Your task to perform on an android device: Search for usb-a to usb-b on walmart.com, select the first entry, and add it to the cart. Image 0: 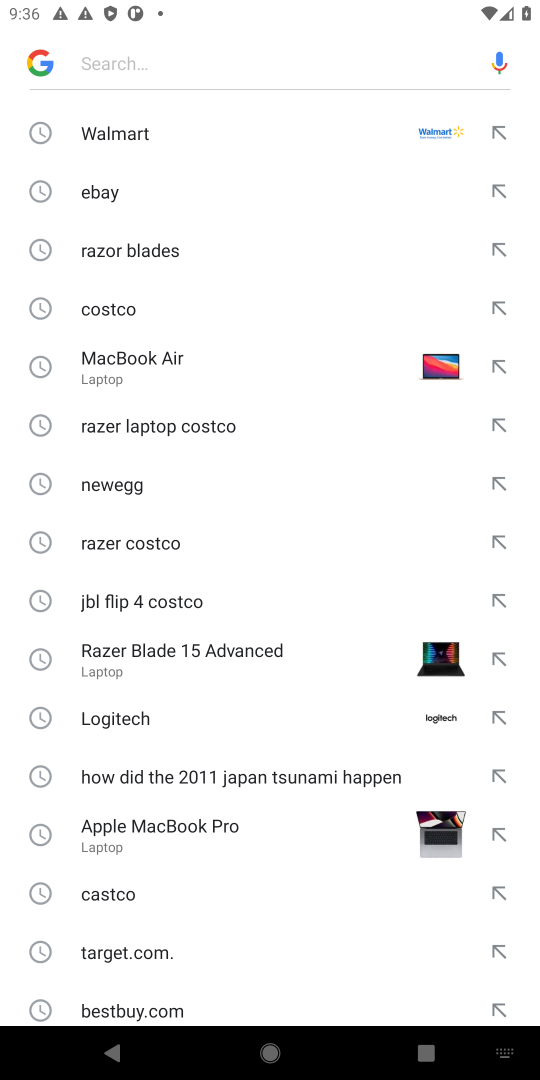
Step 0: click (122, 127)
Your task to perform on an android device: Search for usb-a to usb-b on walmart.com, select the first entry, and add it to the cart. Image 1: 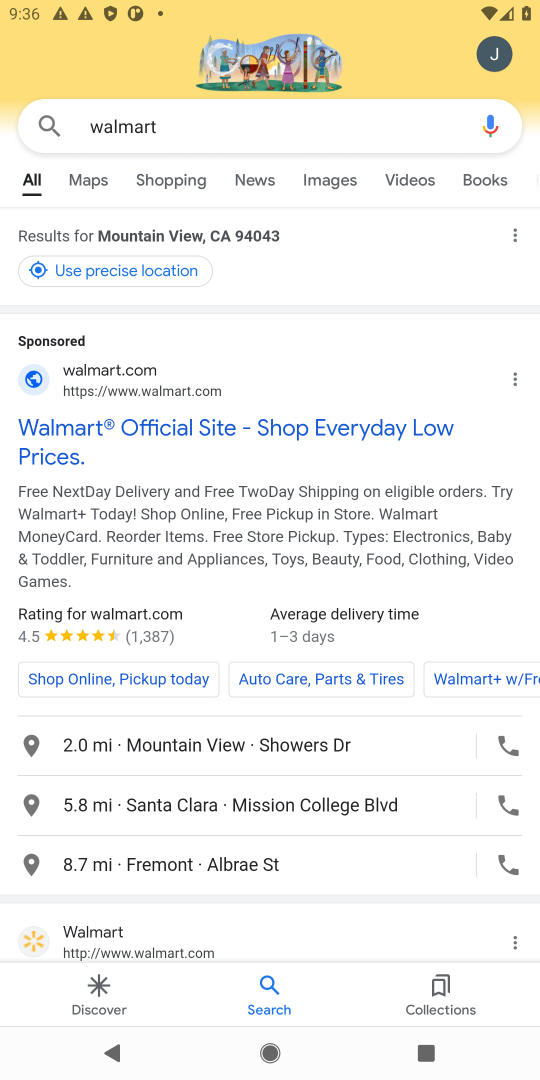
Step 1: click (192, 436)
Your task to perform on an android device: Search for usb-a to usb-b on walmart.com, select the first entry, and add it to the cart. Image 2: 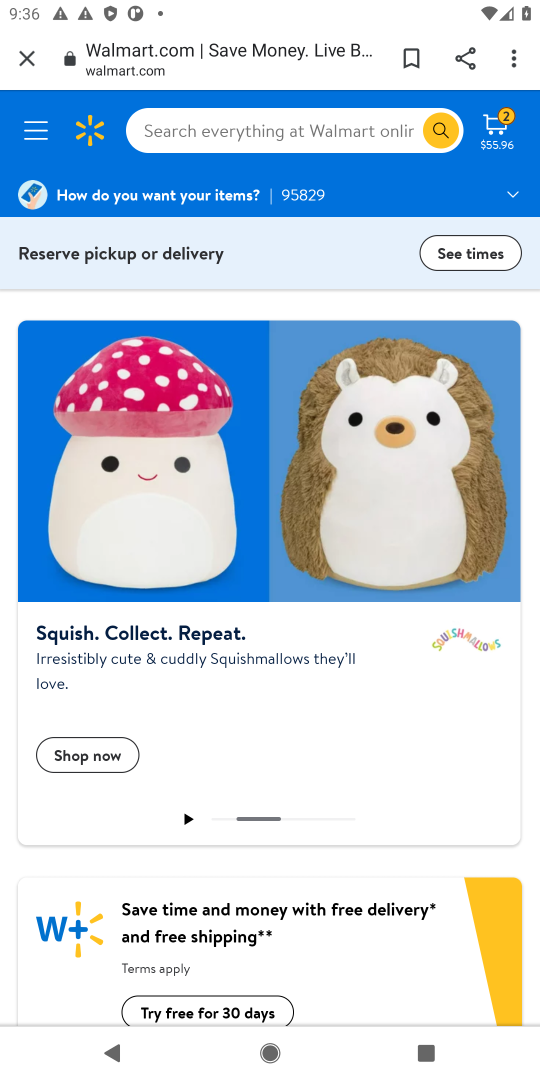
Step 2: click (217, 119)
Your task to perform on an android device: Search for usb-a to usb-b on walmart.com, select the first entry, and add it to the cart. Image 3: 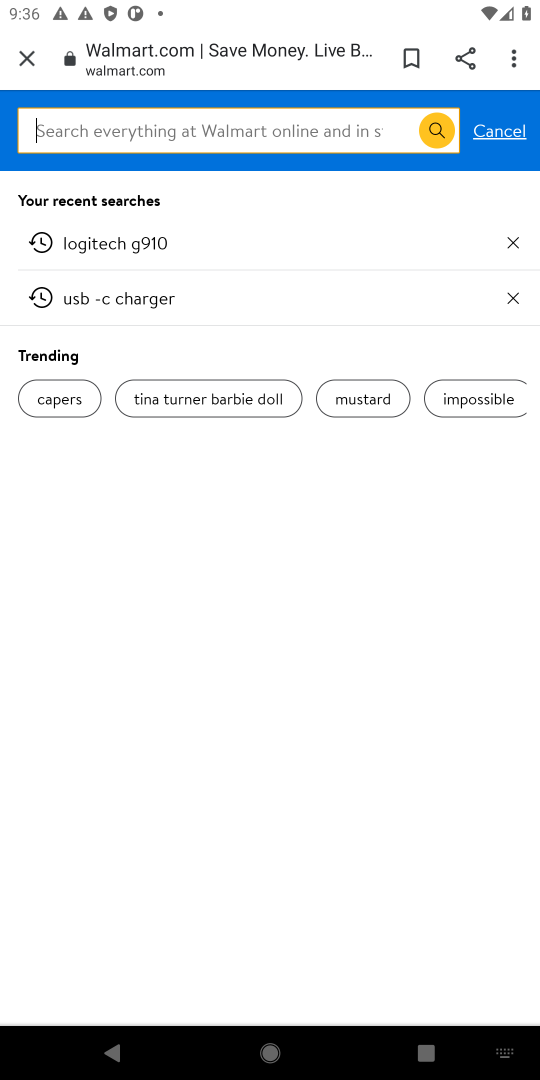
Step 3: type "usb-a to usb-b"
Your task to perform on an android device: Search for usb-a to usb-b on walmart.com, select the first entry, and add it to the cart. Image 4: 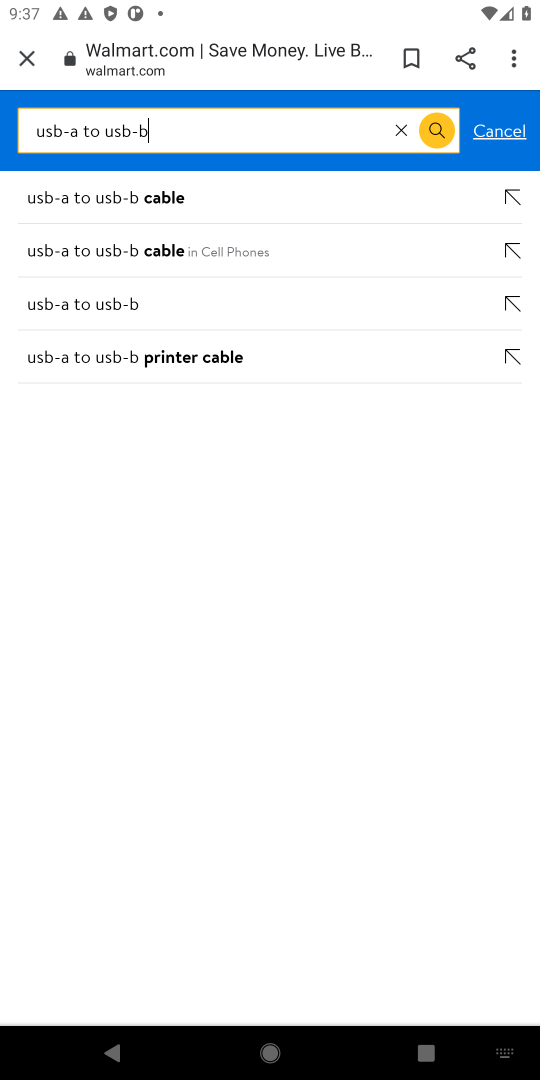
Step 4: click (207, 201)
Your task to perform on an android device: Search for usb-a to usb-b on walmart.com, select the first entry, and add it to the cart. Image 5: 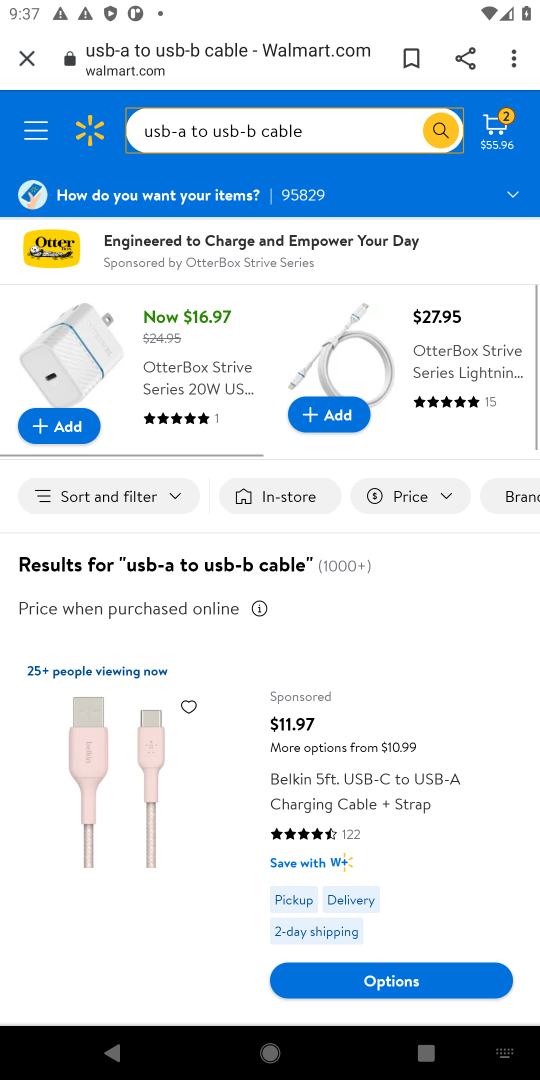
Step 5: click (330, 425)
Your task to perform on an android device: Search for usb-a to usb-b on walmart.com, select the first entry, and add it to the cart. Image 6: 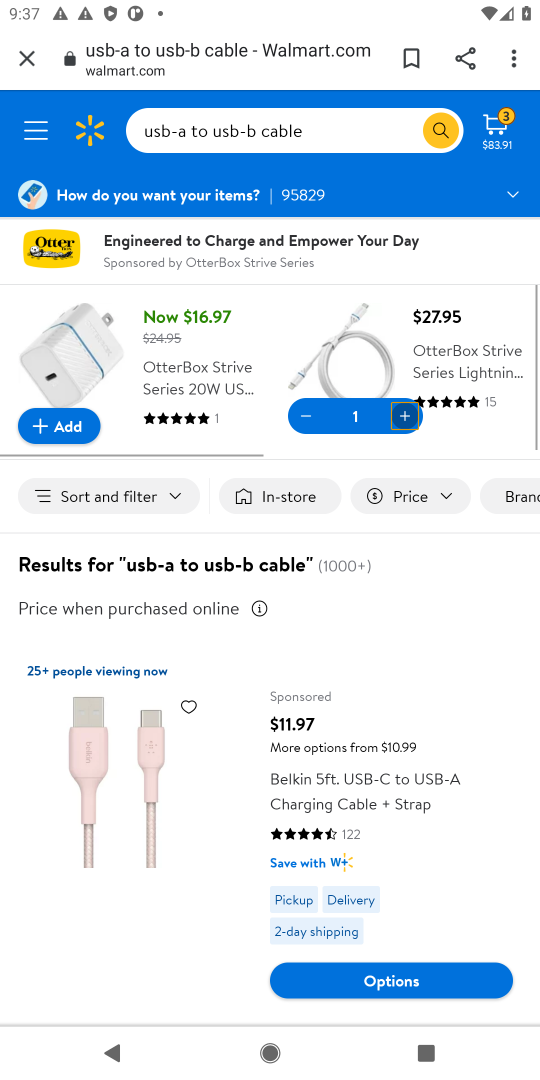
Step 6: task complete